Your task to perform on an android device: turn on improve location accuracy Image 0: 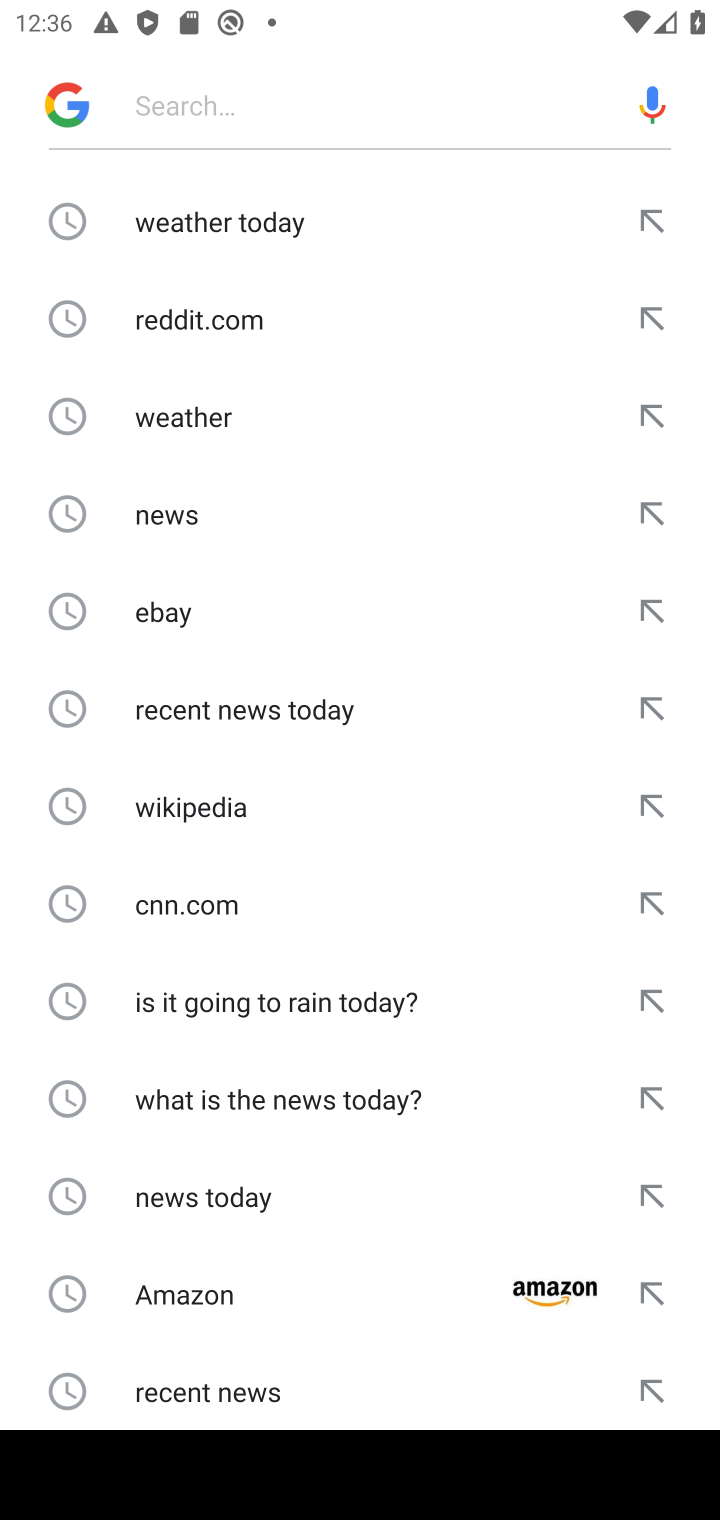
Step 0: press home button
Your task to perform on an android device: turn on improve location accuracy Image 1: 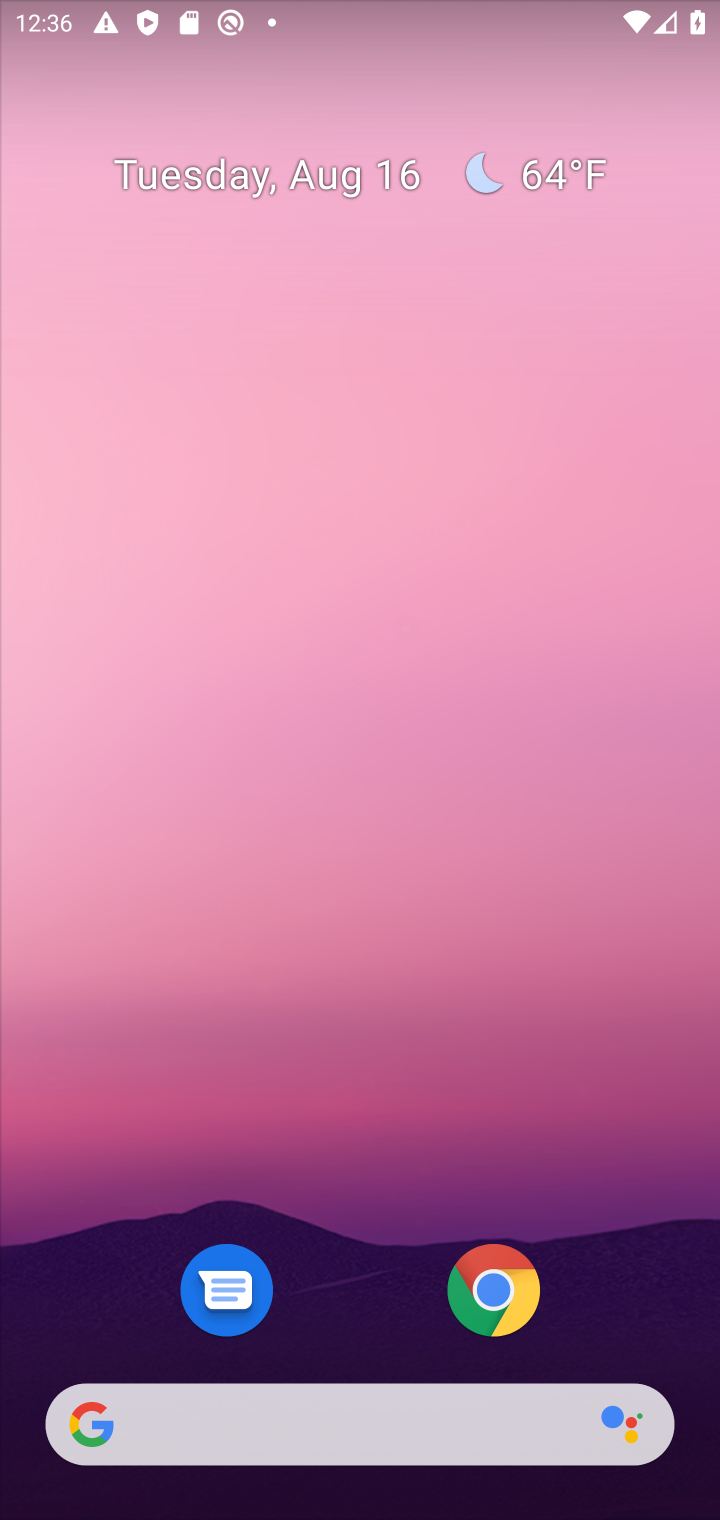
Step 1: drag from (170, 899) to (359, 141)
Your task to perform on an android device: turn on improve location accuracy Image 2: 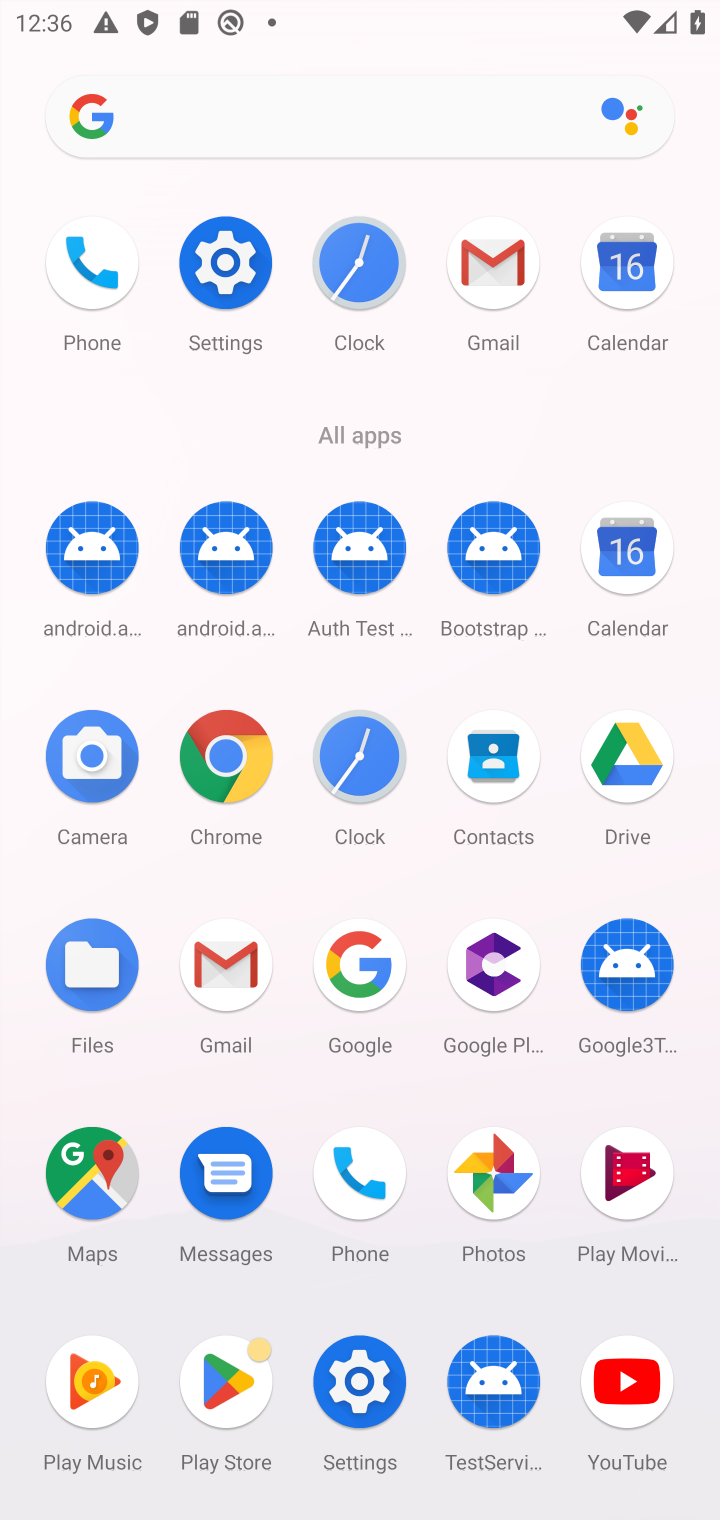
Step 2: click (213, 248)
Your task to perform on an android device: turn on improve location accuracy Image 3: 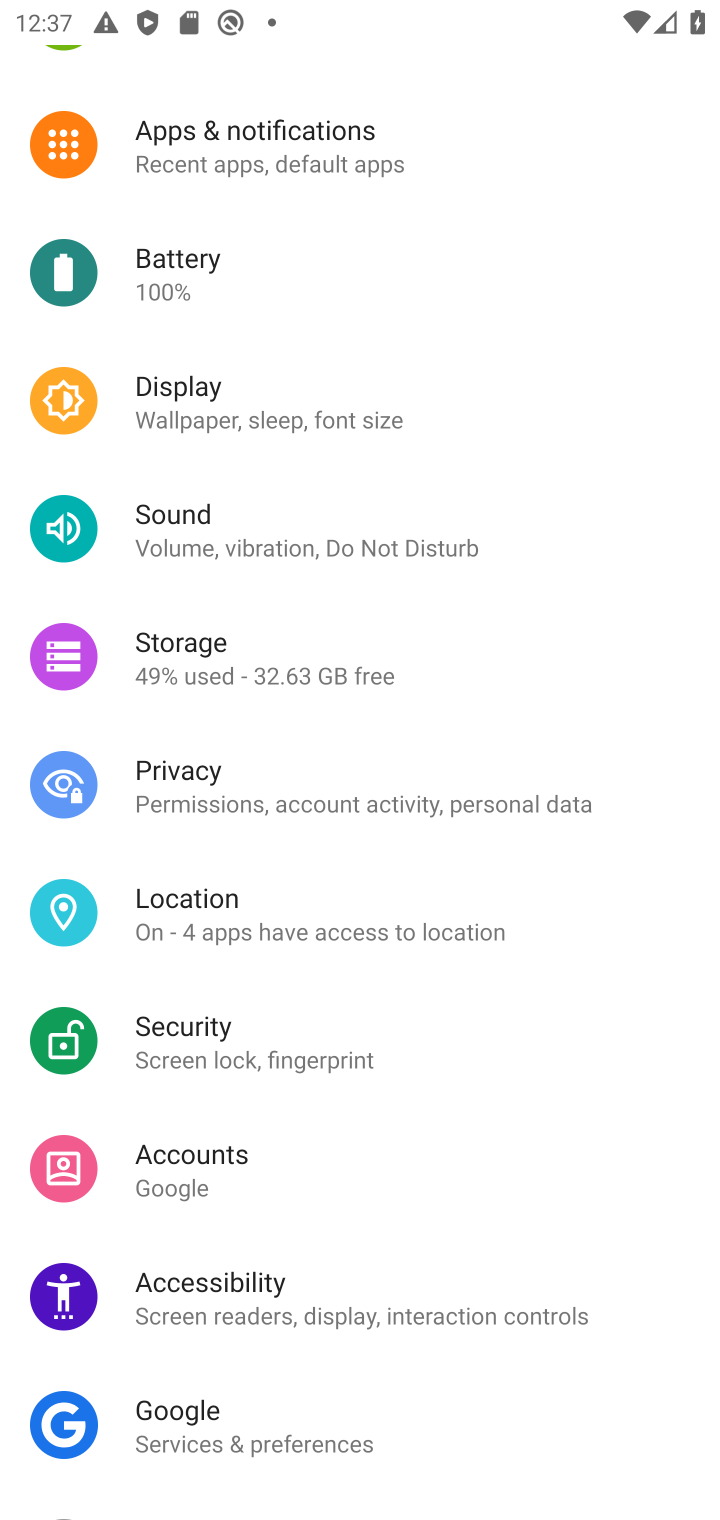
Step 3: click (267, 911)
Your task to perform on an android device: turn on improve location accuracy Image 4: 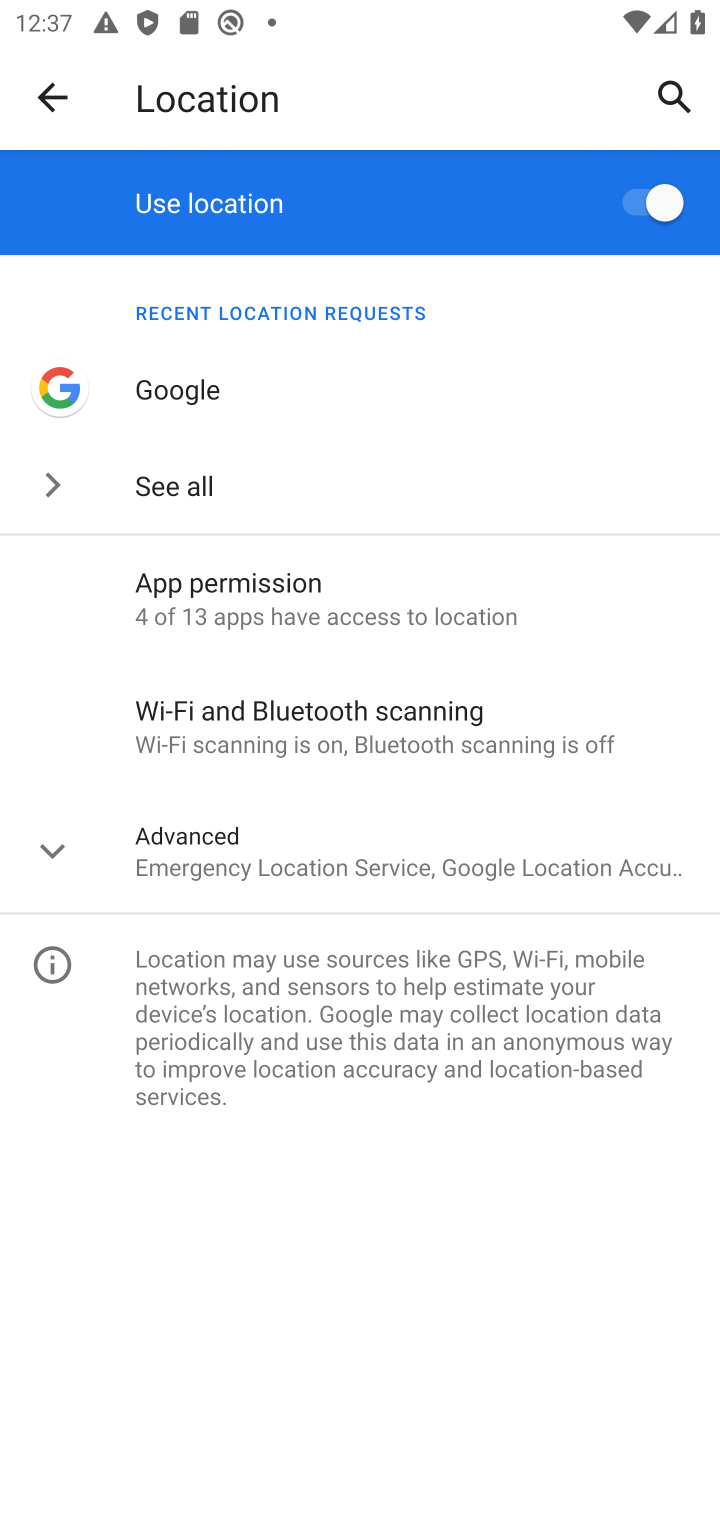
Step 4: click (549, 868)
Your task to perform on an android device: turn on improve location accuracy Image 5: 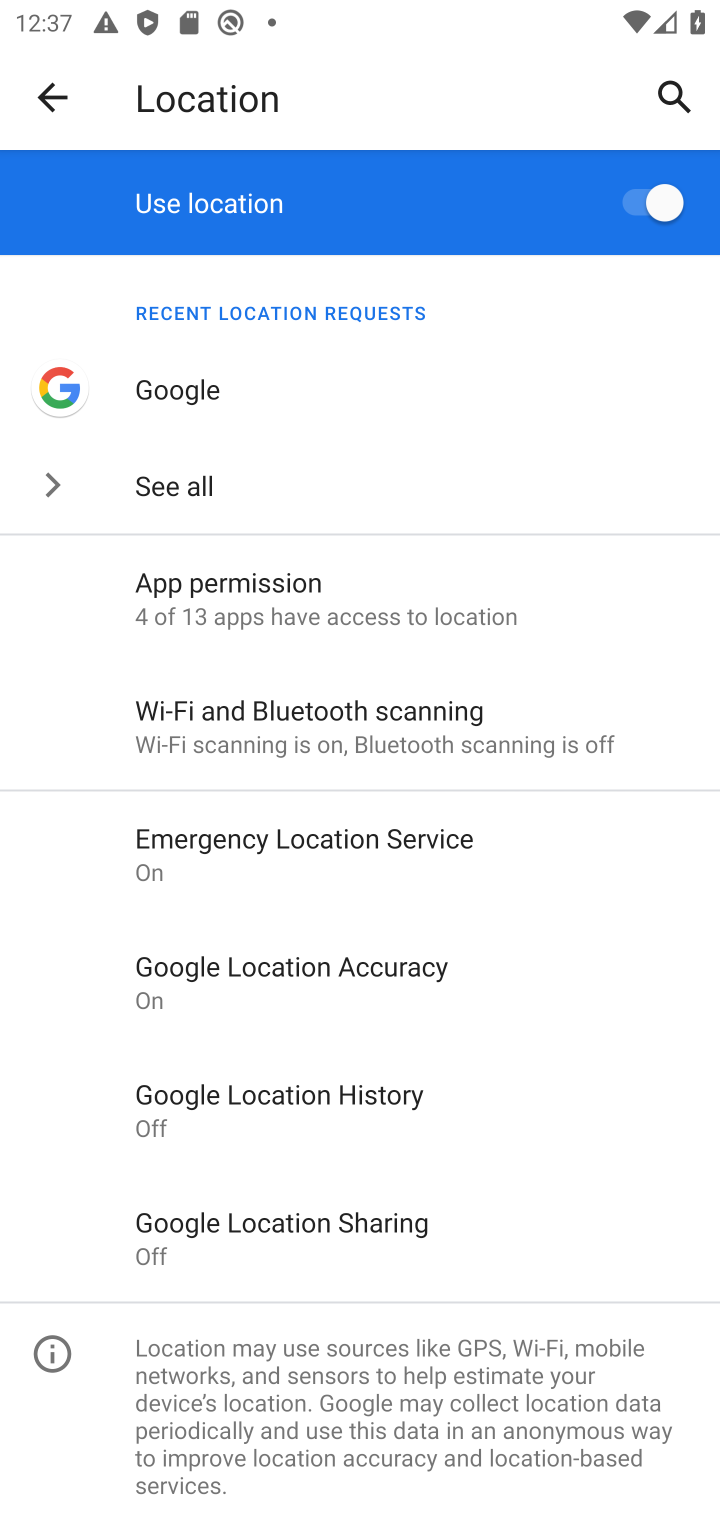
Step 5: click (399, 943)
Your task to perform on an android device: turn on improve location accuracy Image 6: 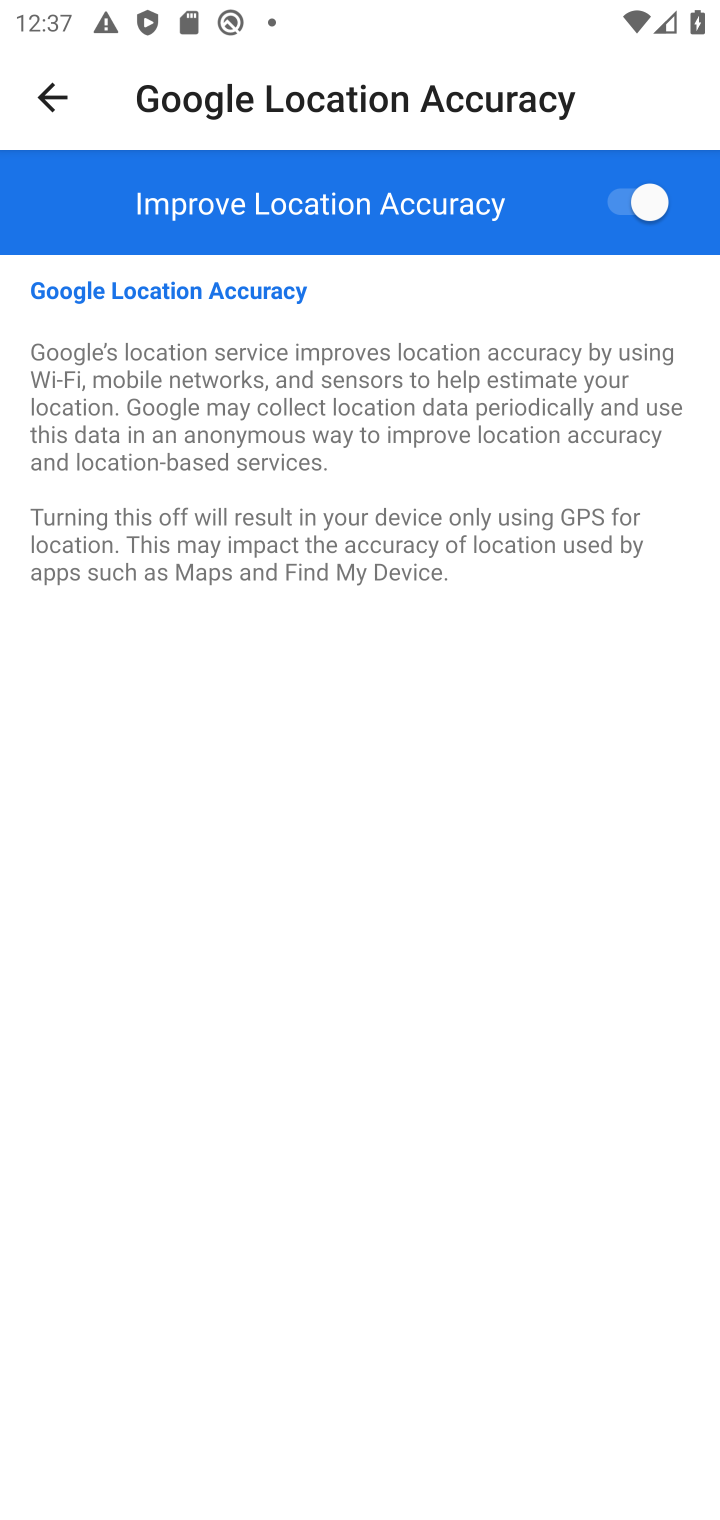
Step 6: task complete